Your task to perform on an android device: Go to display settings Image 0: 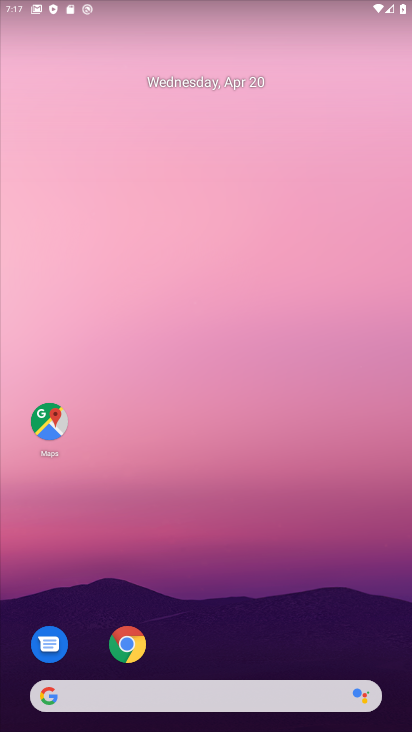
Step 0: drag from (294, 478) to (235, 61)
Your task to perform on an android device: Go to display settings Image 1: 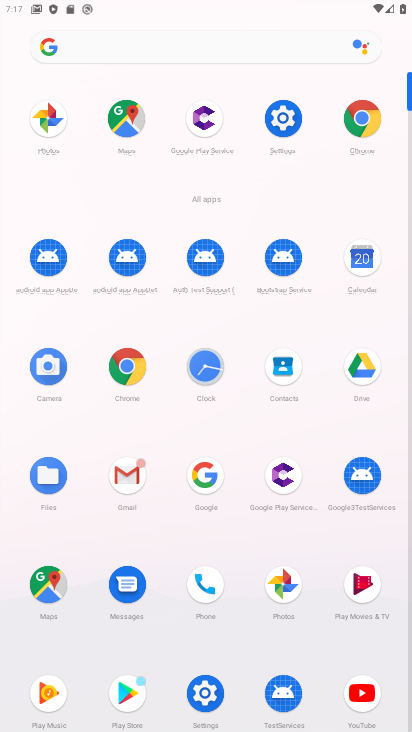
Step 1: click (201, 696)
Your task to perform on an android device: Go to display settings Image 2: 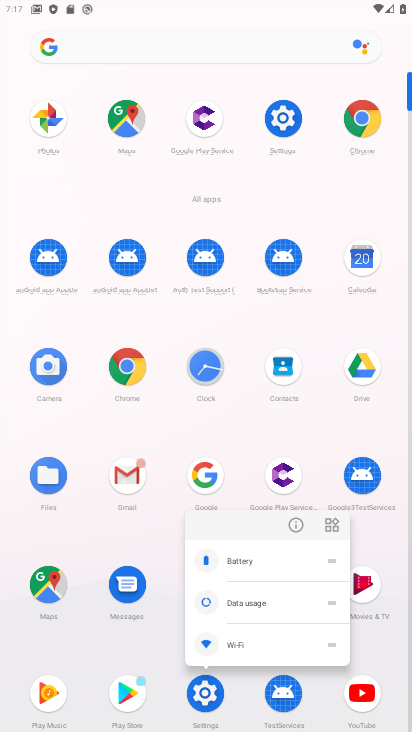
Step 2: click (201, 698)
Your task to perform on an android device: Go to display settings Image 3: 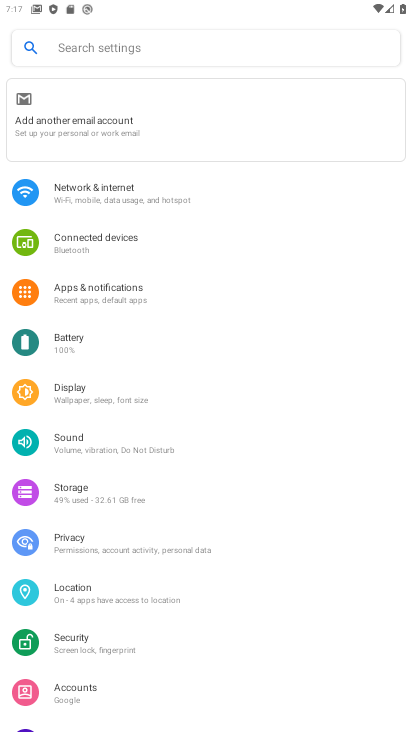
Step 3: click (100, 394)
Your task to perform on an android device: Go to display settings Image 4: 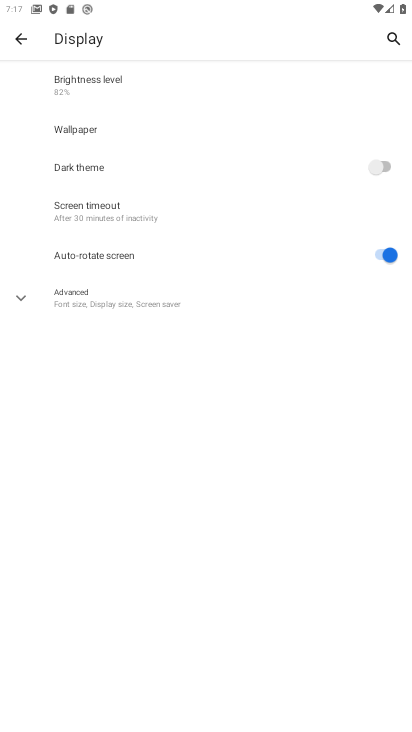
Step 4: task complete